Your task to perform on an android device: Turn on the flashlight Image 0: 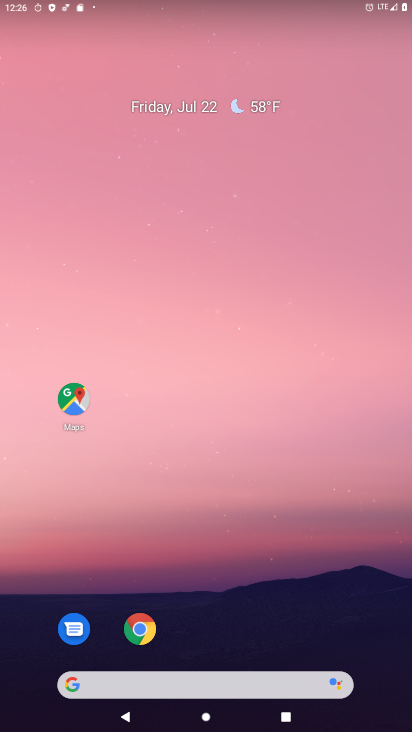
Step 0: drag from (375, 611) to (373, 371)
Your task to perform on an android device: Turn on the flashlight Image 1: 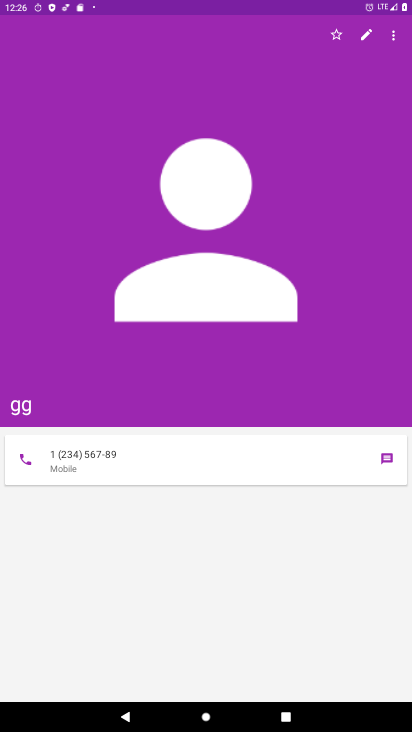
Step 1: task complete